Your task to perform on an android device: Do I have any events today? Image 0: 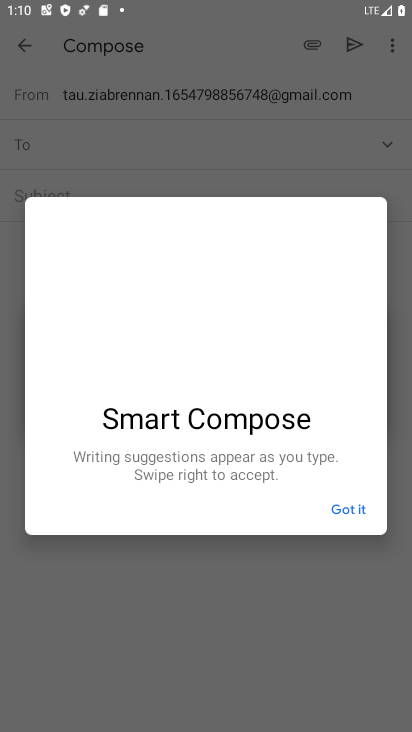
Step 0: press home button
Your task to perform on an android device: Do I have any events today? Image 1: 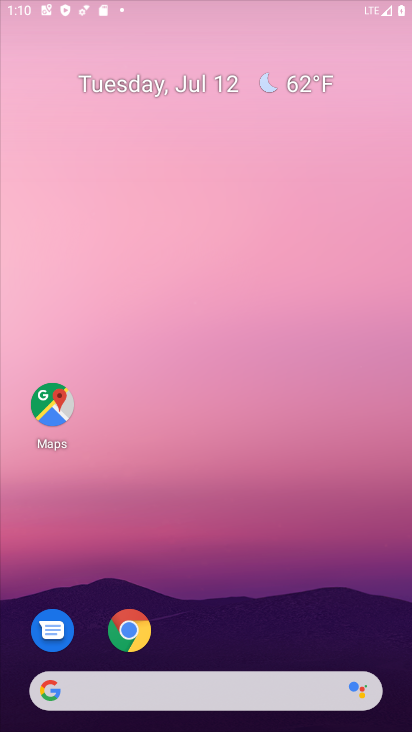
Step 1: drag from (228, 468) to (240, 183)
Your task to perform on an android device: Do I have any events today? Image 2: 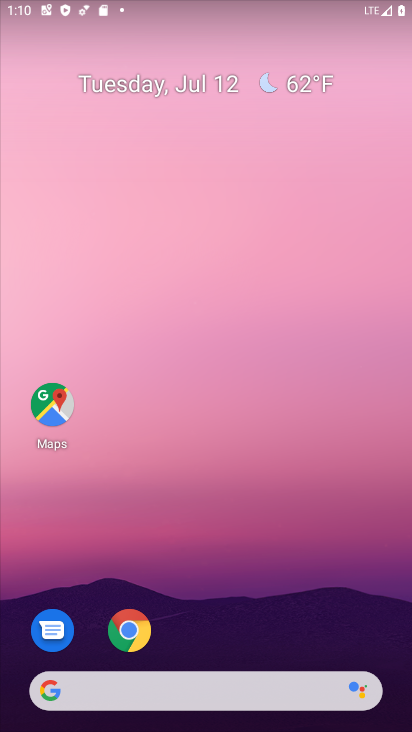
Step 2: drag from (203, 625) to (278, 123)
Your task to perform on an android device: Do I have any events today? Image 3: 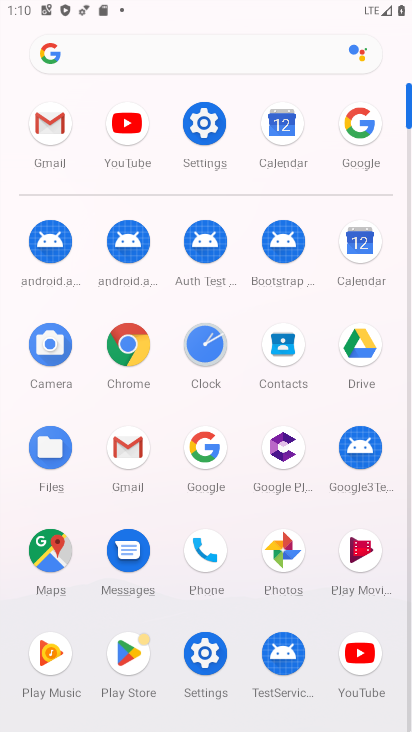
Step 3: click (357, 124)
Your task to perform on an android device: Do I have any events today? Image 4: 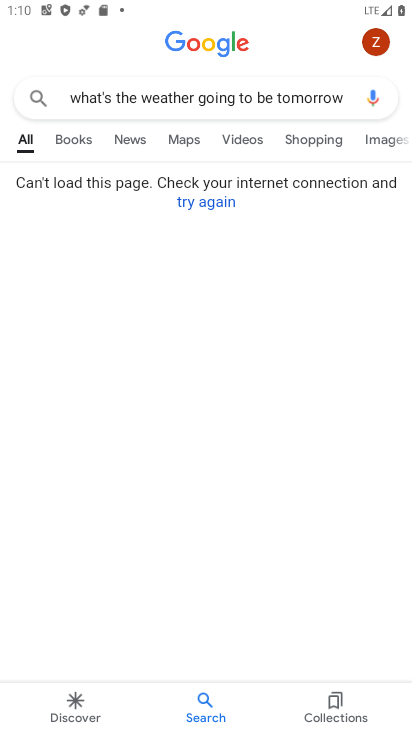
Step 4: click (327, 104)
Your task to perform on an android device: Do I have any events today? Image 5: 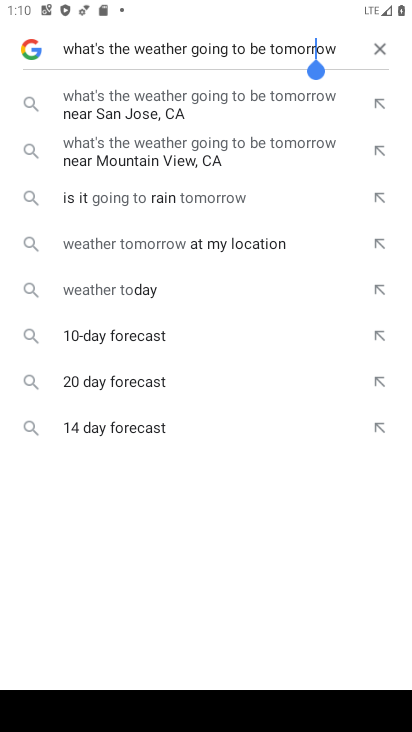
Step 5: click (377, 50)
Your task to perform on an android device: Do I have any events today? Image 6: 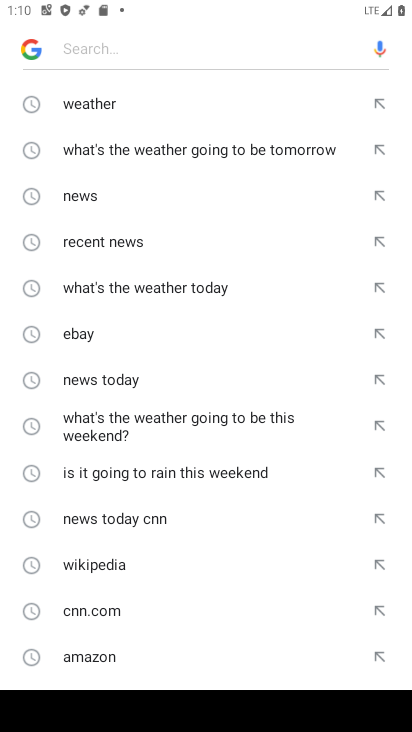
Step 6: type "Do I have any events today?"
Your task to perform on an android device: Do I have any events today? Image 7: 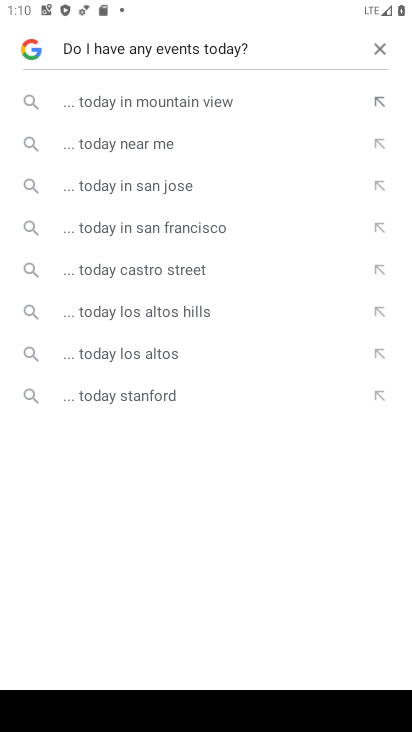
Step 7: click (373, 48)
Your task to perform on an android device: Do I have any events today? Image 8: 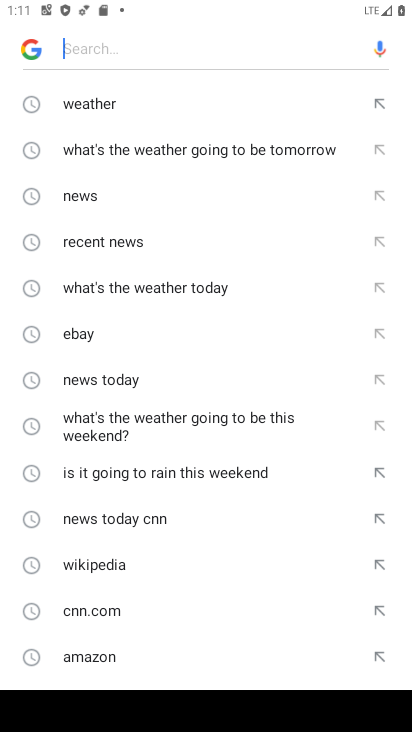
Step 8: task complete